Your task to perform on an android device: What's the weather going to be this weekend? Image 0: 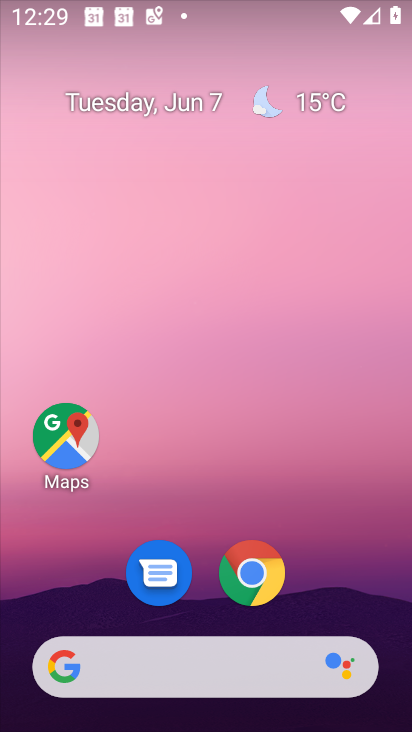
Step 0: press home button
Your task to perform on an android device: What's the weather going to be this weekend? Image 1: 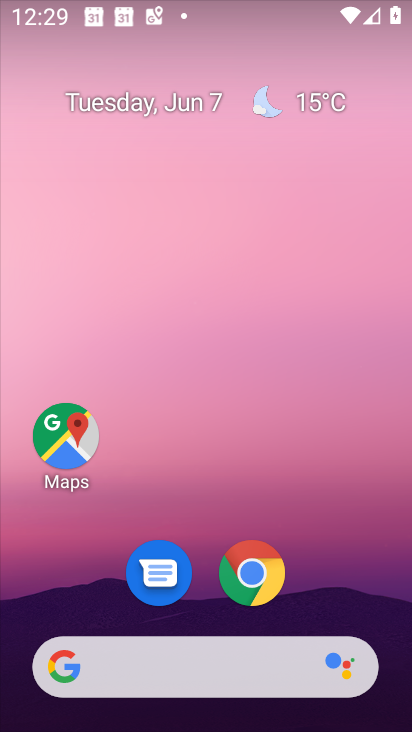
Step 1: click (264, 675)
Your task to perform on an android device: What's the weather going to be this weekend? Image 2: 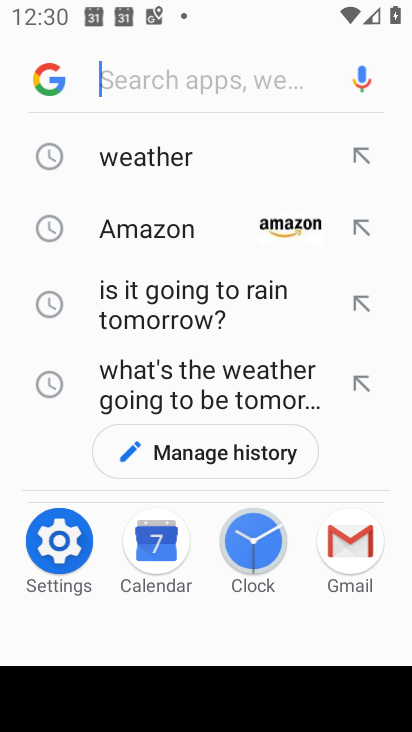
Step 2: type " weather going to be this weekend?"
Your task to perform on an android device: What's the weather going to be this weekend? Image 3: 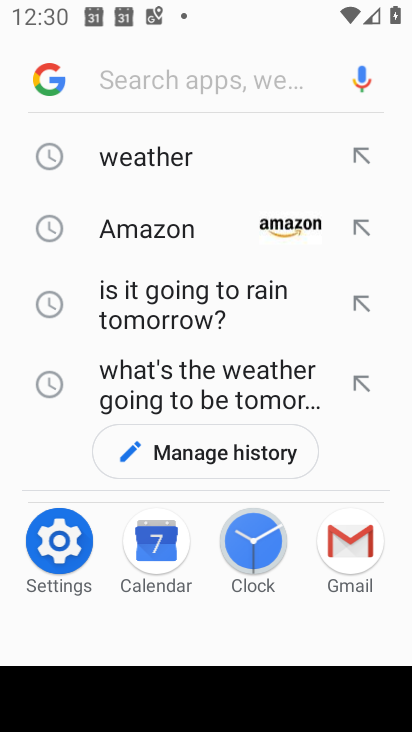
Step 3: click (215, 88)
Your task to perform on an android device: What's the weather going to be this weekend? Image 4: 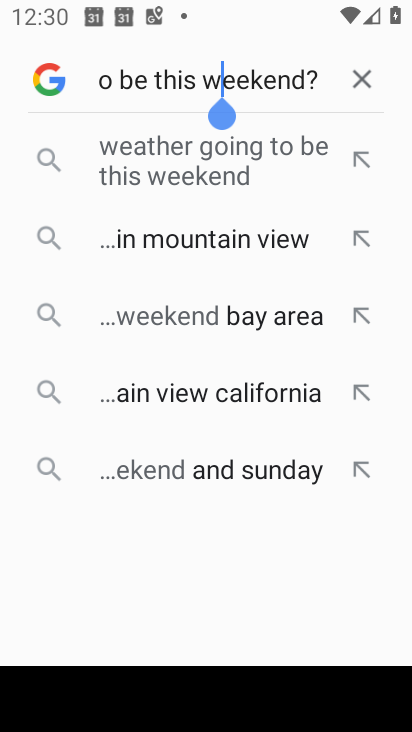
Step 4: click (221, 84)
Your task to perform on an android device: What's the weather going to be this weekend? Image 5: 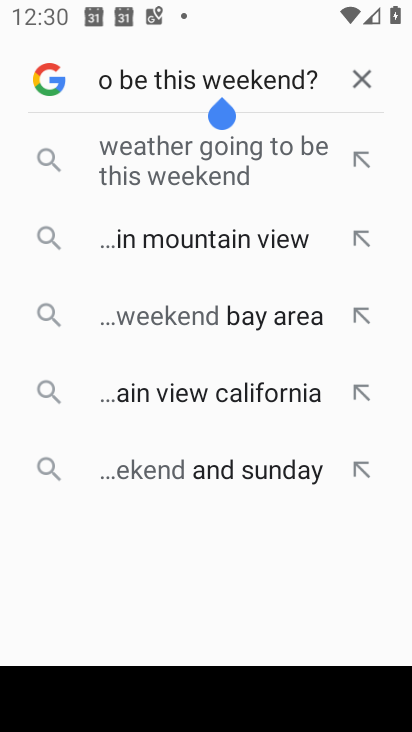
Step 5: click (156, 174)
Your task to perform on an android device: What's the weather going to be this weekend? Image 6: 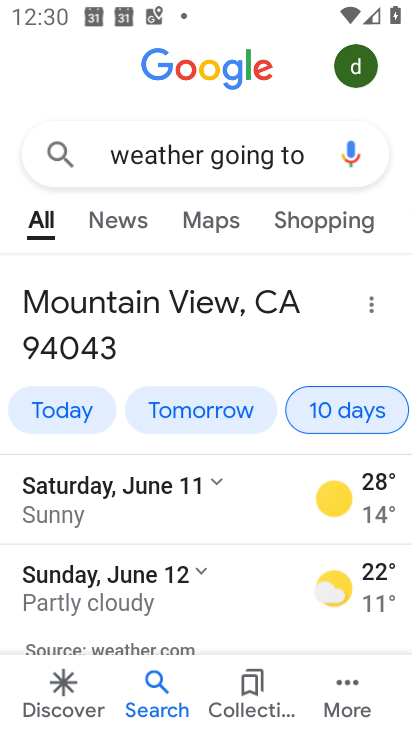
Step 6: task complete